Your task to perform on an android device: What's the weather? Image 0: 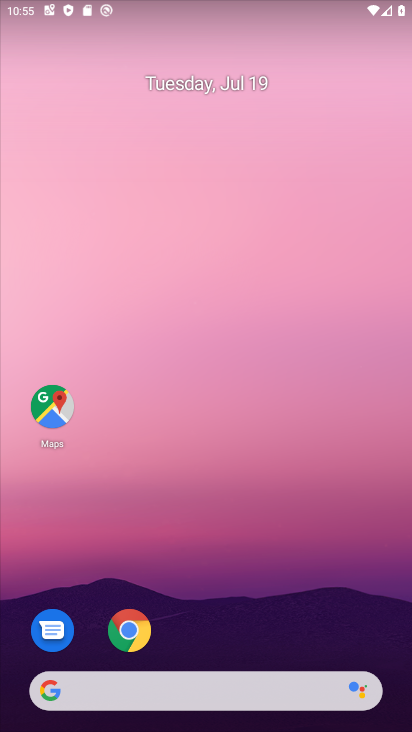
Step 0: drag from (205, 697) to (173, 19)
Your task to perform on an android device: What's the weather? Image 1: 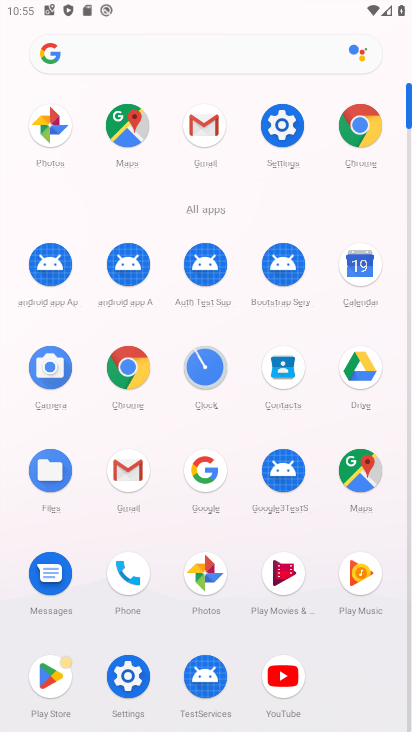
Step 1: click (286, 122)
Your task to perform on an android device: What's the weather? Image 2: 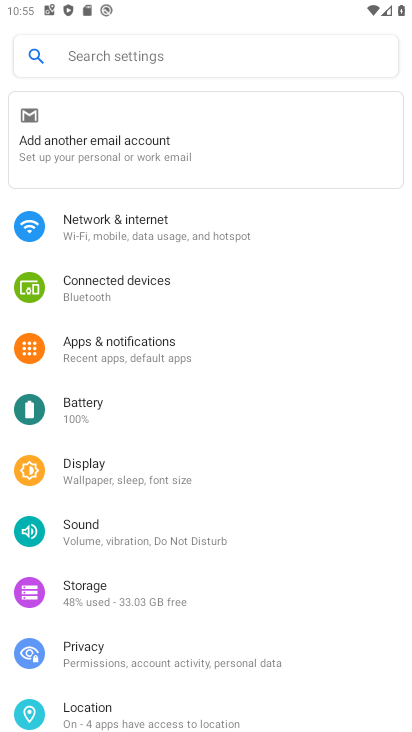
Step 2: task complete